Your task to perform on an android device: turn off notifications settings in the gmail app Image 0: 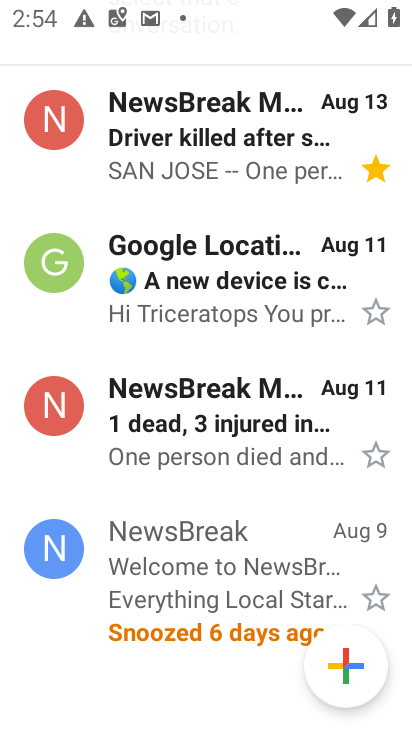
Step 0: press back button
Your task to perform on an android device: turn off notifications settings in the gmail app Image 1: 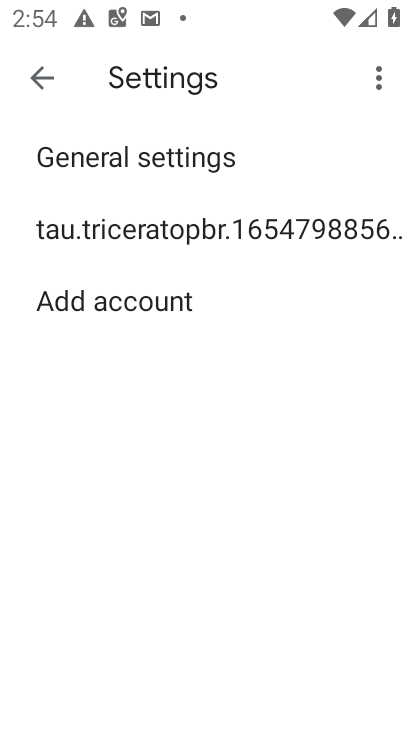
Step 1: click (146, 218)
Your task to perform on an android device: turn off notifications settings in the gmail app Image 2: 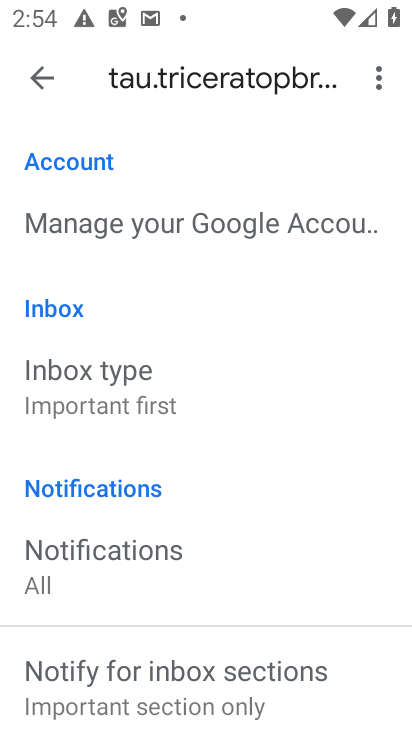
Step 2: drag from (263, 603) to (298, 252)
Your task to perform on an android device: turn off notifications settings in the gmail app Image 3: 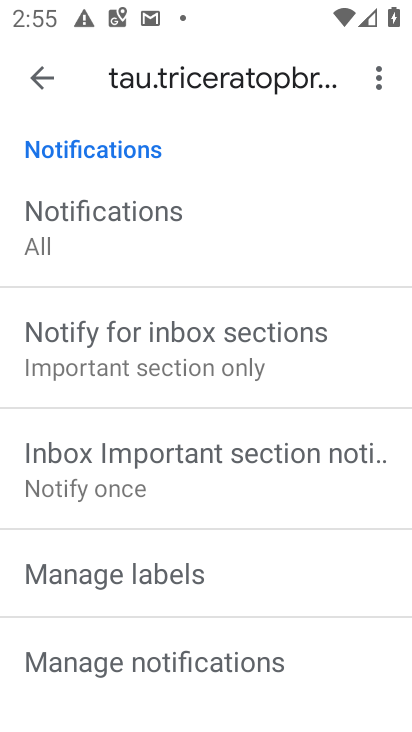
Step 3: drag from (287, 624) to (286, 362)
Your task to perform on an android device: turn off notifications settings in the gmail app Image 4: 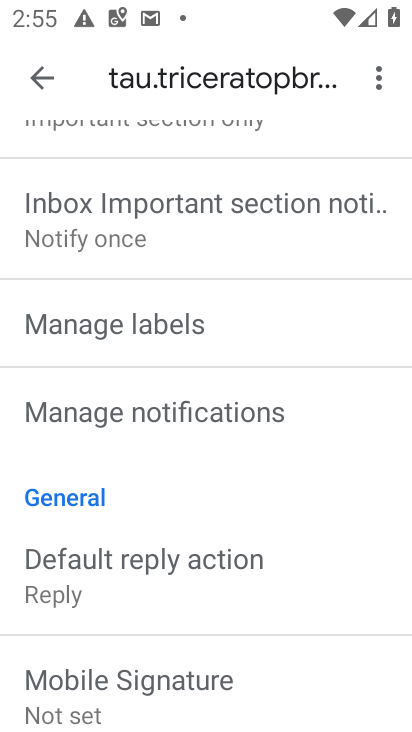
Step 4: click (153, 417)
Your task to perform on an android device: turn off notifications settings in the gmail app Image 5: 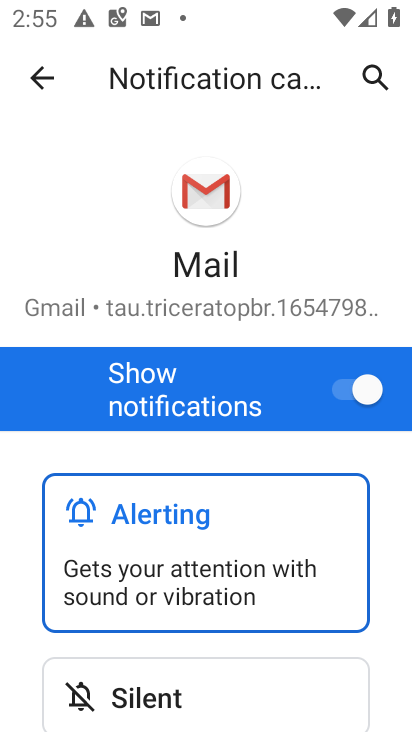
Step 5: drag from (294, 456) to (303, 216)
Your task to perform on an android device: turn off notifications settings in the gmail app Image 6: 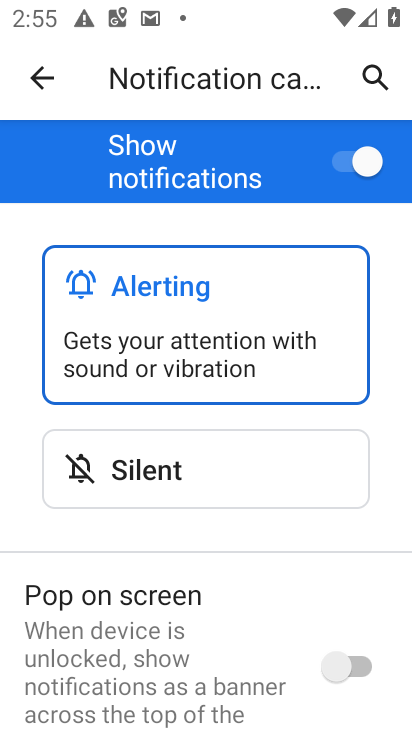
Step 6: click (340, 158)
Your task to perform on an android device: turn off notifications settings in the gmail app Image 7: 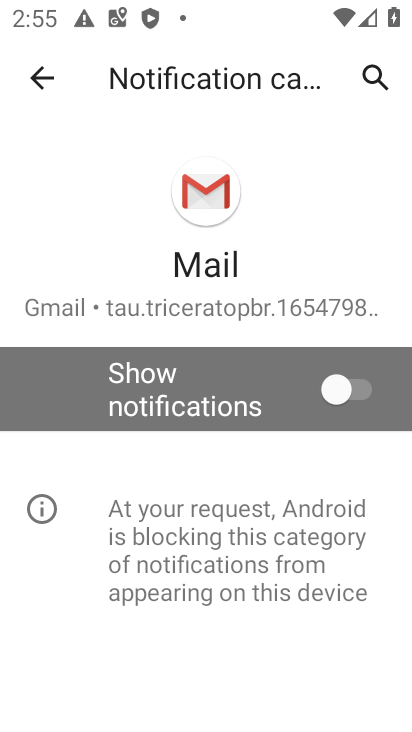
Step 7: task complete